Your task to perform on an android device: See recent photos Image 0: 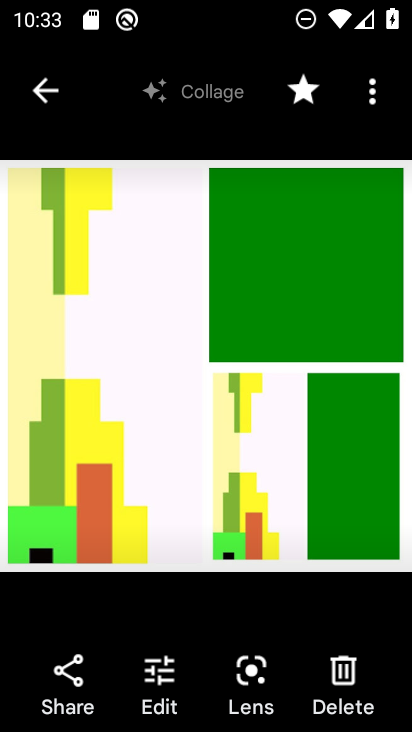
Step 0: press home button
Your task to perform on an android device: See recent photos Image 1: 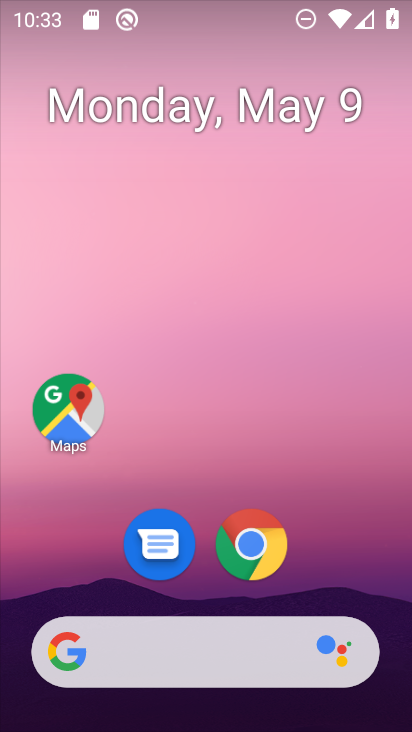
Step 1: drag from (319, 527) to (258, 6)
Your task to perform on an android device: See recent photos Image 2: 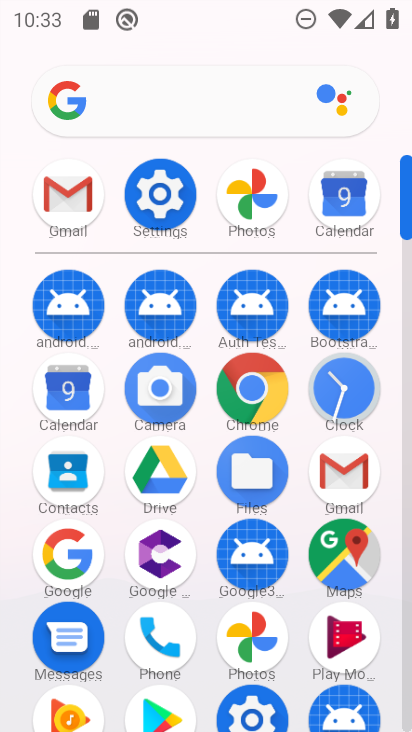
Step 2: click (251, 191)
Your task to perform on an android device: See recent photos Image 3: 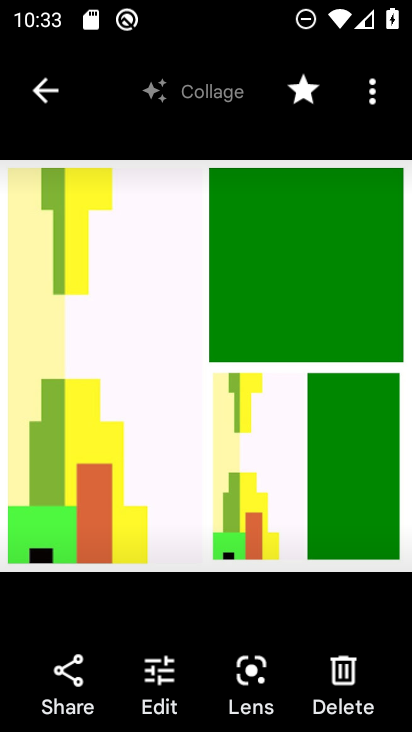
Step 3: click (48, 90)
Your task to perform on an android device: See recent photos Image 4: 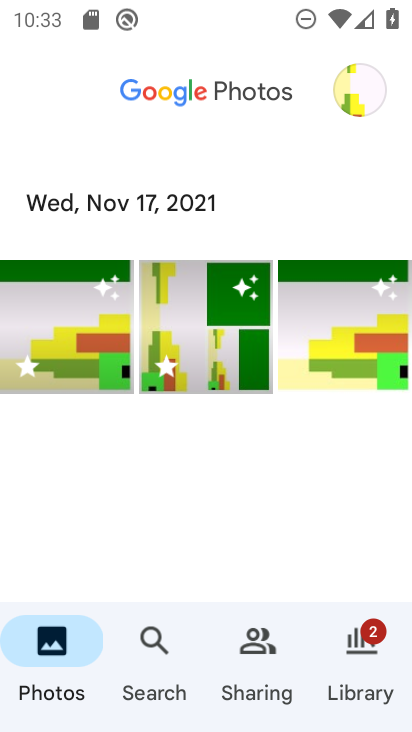
Step 4: task complete